Your task to perform on an android device: Search for Mexican restaurants on Maps Image 0: 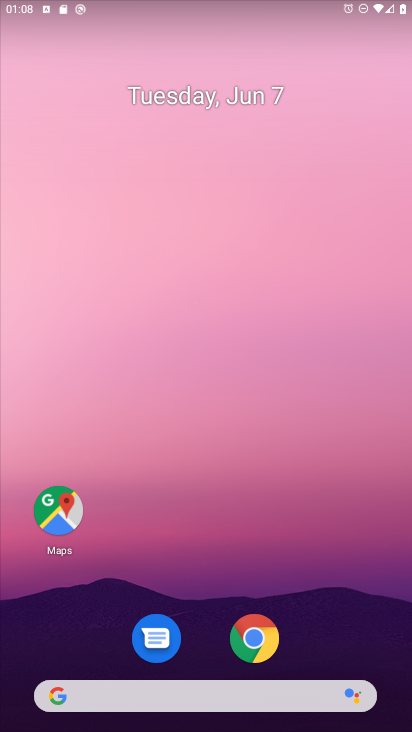
Step 0: drag from (235, 701) to (301, 273)
Your task to perform on an android device: Search for Mexican restaurants on Maps Image 1: 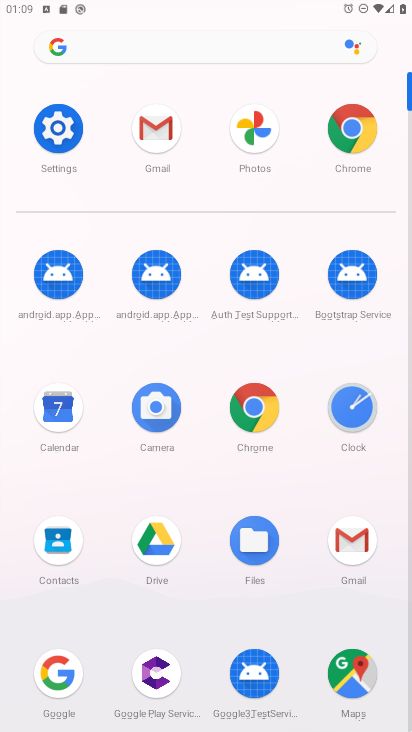
Step 1: click (342, 656)
Your task to perform on an android device: Search for Mexican restaurants on Maps Image 2: 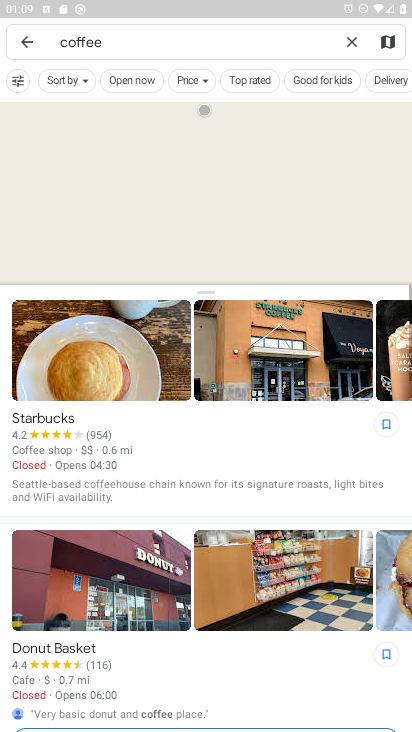
Step 2: click (350, 33)
Your task to perform on an android device: Search for Mexican restaurants on Maps Image 3: 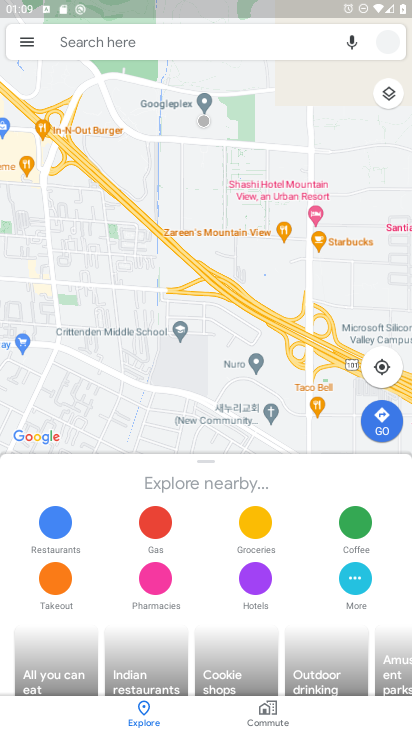
Step 3: click (194, 45)
Your task to perform on an android device: Search for Mexican restaurants on Maps Image 4: 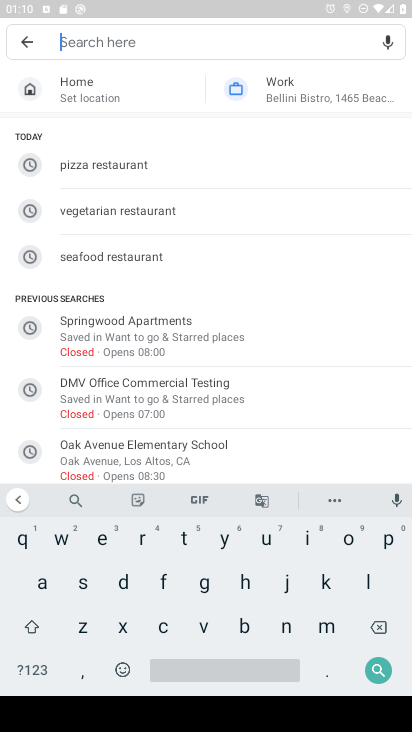
Step 4: click (331, 624)
Your task to perform on an android device: Search for Mexican restaurants on Maps Image 5: 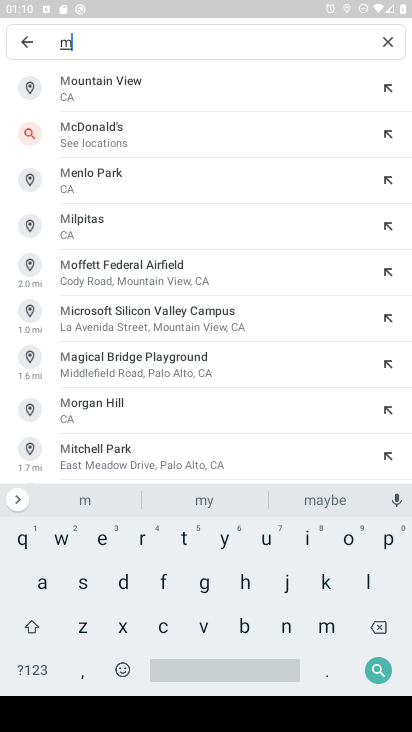
Step 5: click (95, 529)
Your task to perform on an android device: Search for Mexican restaurants on Maps Image 6: 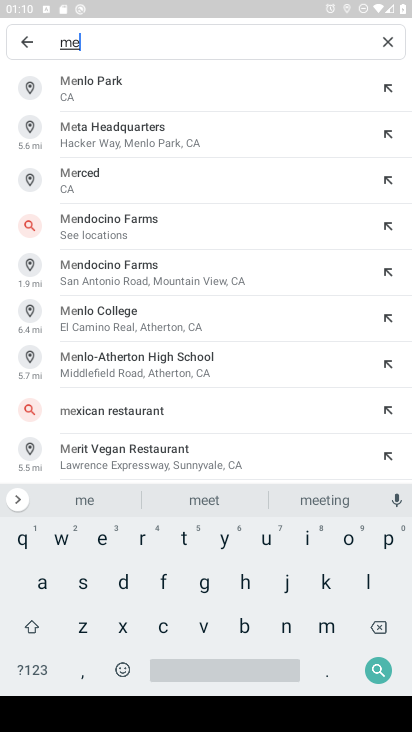
Step 6: click (122, 633)
Your task to perform on an android device: Search for Mexican restaurants on Maps Image 7: 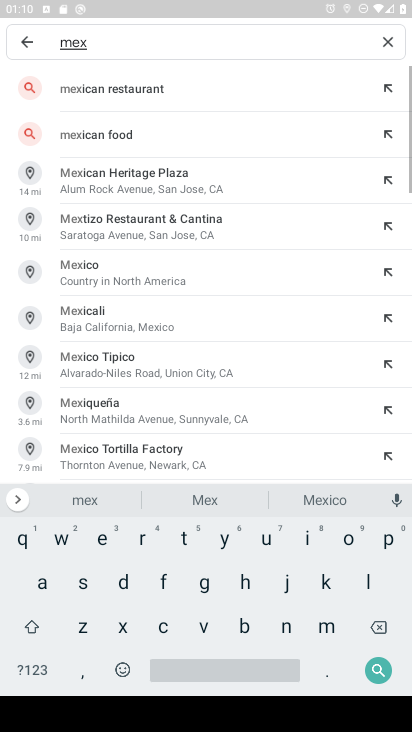
Step 7: click (142, 96)
Your task to perform on an android device: Search for Mexican restaurants on Maps Image 8: 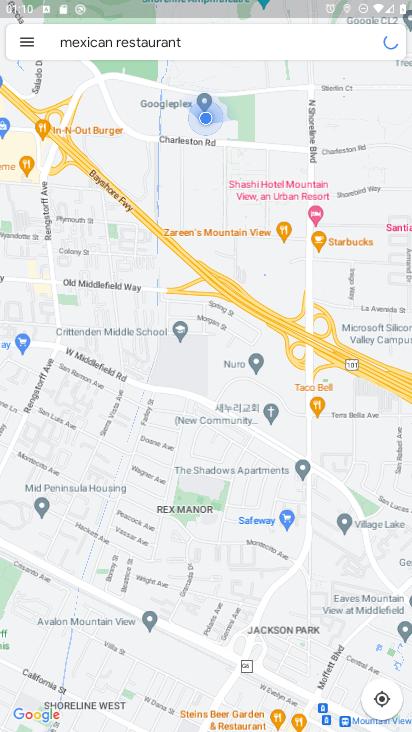
Step 8: task complete